Your task to perform on an android device: star an email in the gmail app Image 0: 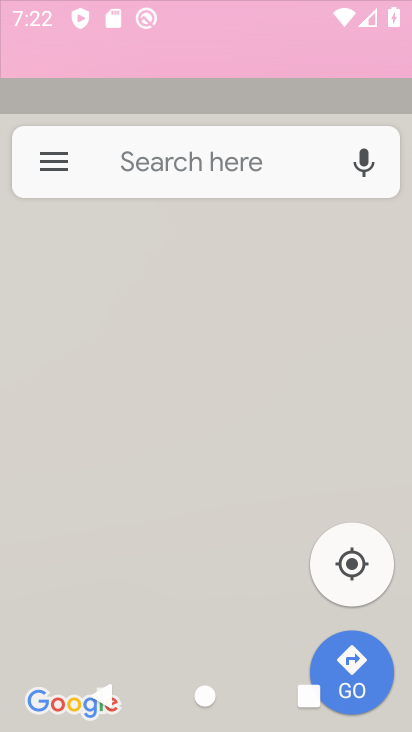
Step 0: click (183, 220)
Your task to perform on an android device: star an email in the gmail app Image 1: 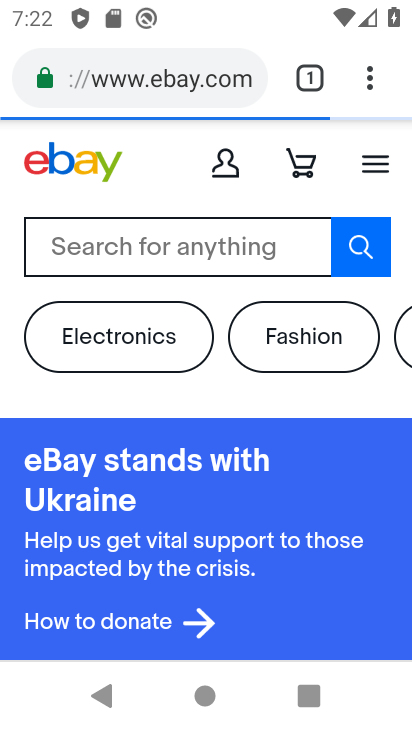
Step 1: press home button
Your task to perform on an android device: star an email in the gmail app Image 2: 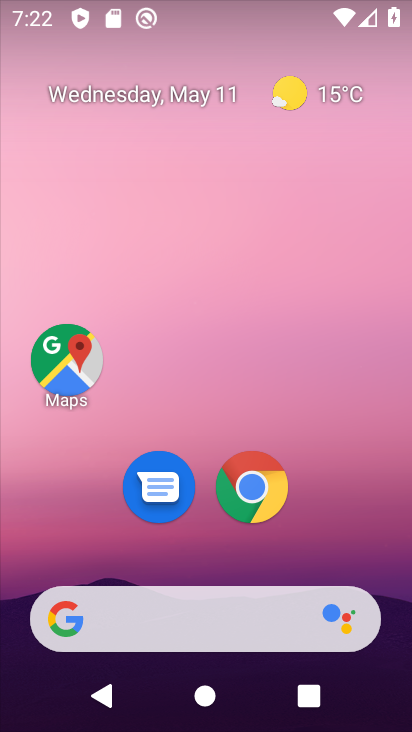
Step 2: drag from (248, 651) to (182, 81)
Your task to perform on an android device: star an email in the gmail app Image 3: 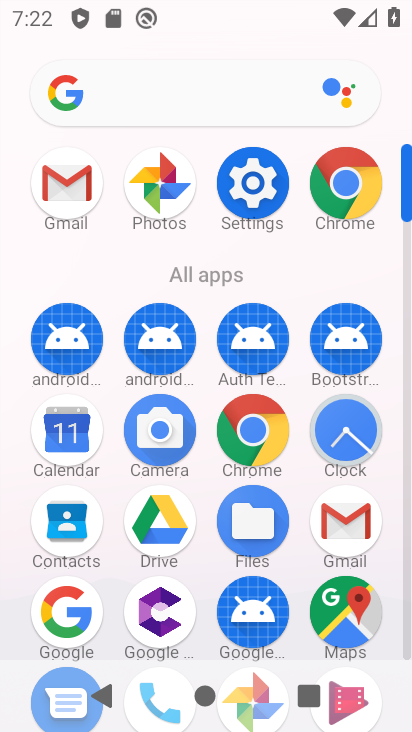
Step 3: click (353, 535)
Your task to perform on an android device: star an email in the gmail app Image 4: 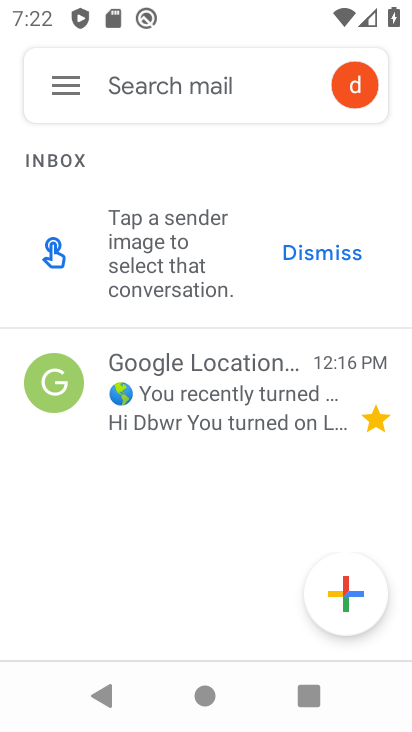
Step 4: click (318, 250)
Your task to perform on an android device: star an email in the gmail app Image 5: 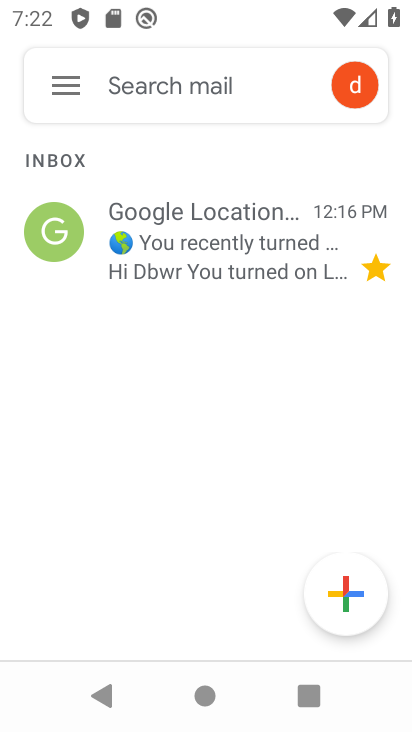
Step 5: click (228, 253)
Your task to perform on an android device: star an email in the gmail app Image 6: 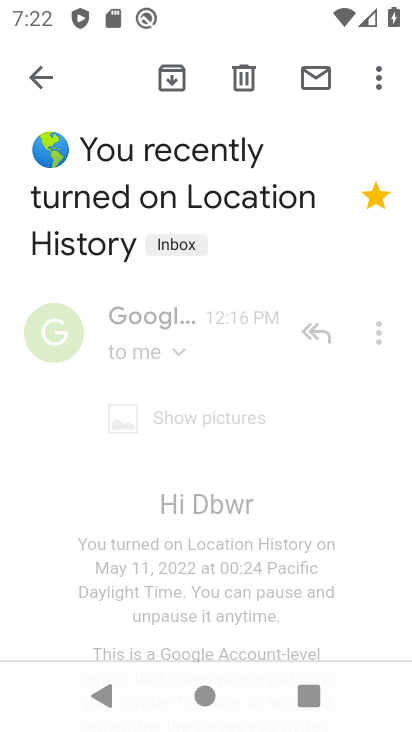
Step 6: click (377, 191)
Your task to perform on an android device: star an email in the gmail app Image 7: 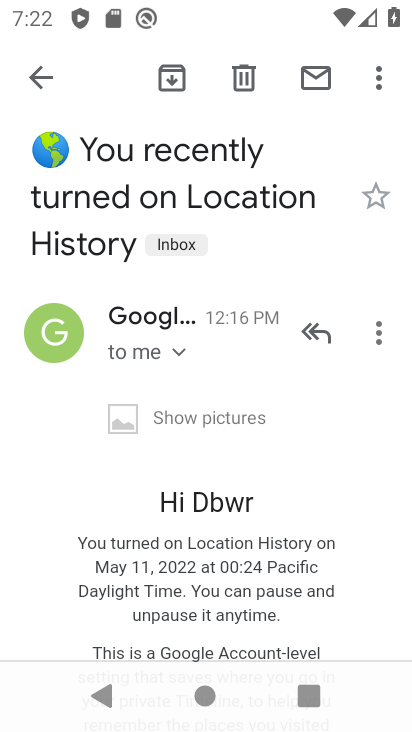
Step 7: click (370, 198)
Your task to perform on an android device: star an email in the gmail app Image 8: 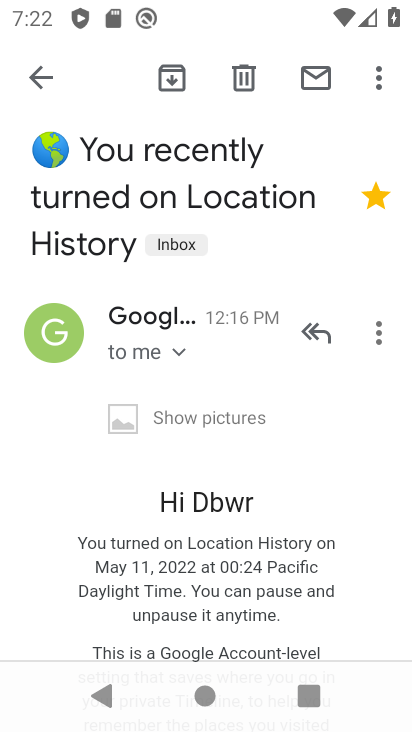
Step 8: task complete